Your task to perform on an android device: Open the map Image 0: 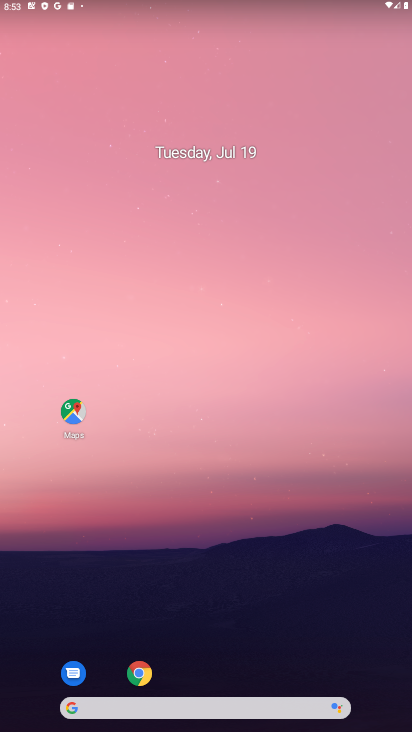
Step 0: click (75, 407)
Your task to perform on an android device: Open the map Image 1: 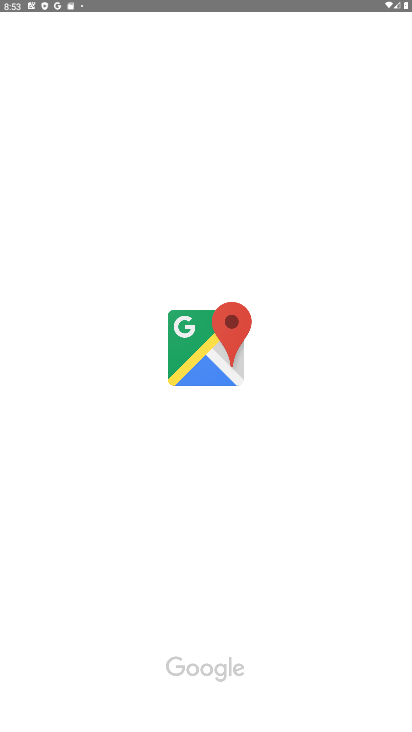
Step 1: task complete